Your task to perform on an android device: Find coffee shops on Maps Image 0: 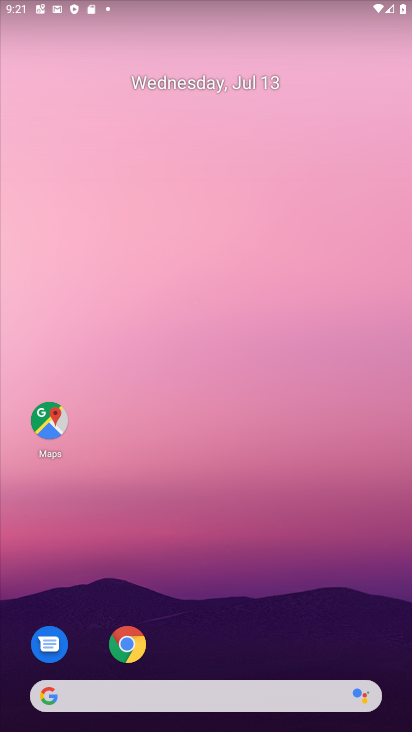
Step 0: drag from (167, 665) to (248, 196)
Your task to perform on an android device: Find coffee shops on Maps Image 1: 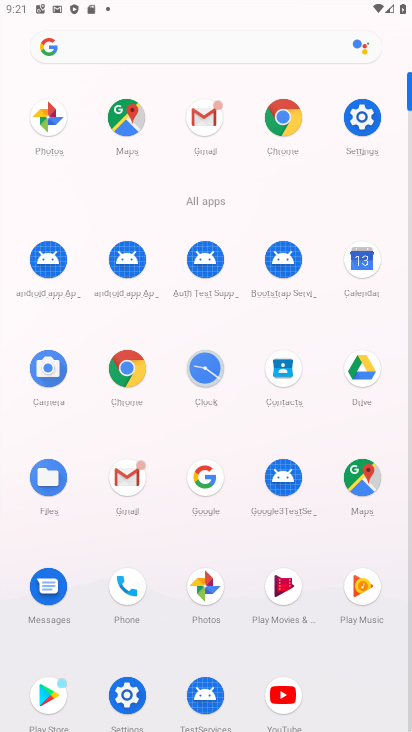
Step 1: click (359, 470)
Your task to perform on an android device: Find coffee shops on Maps Image 2: 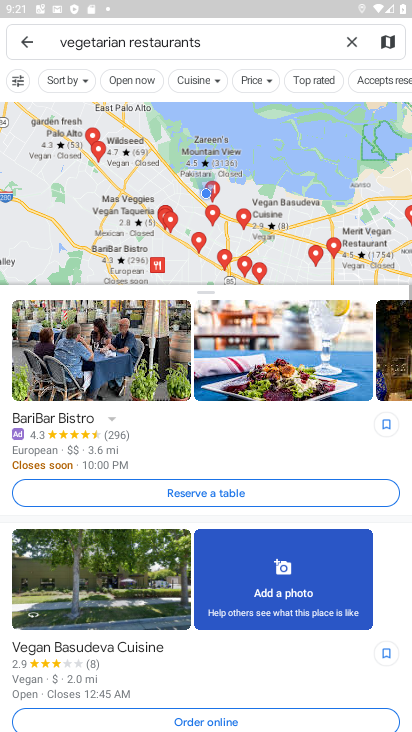
Step 2: click (351, 42)
Your task to perform on an android device: Find coffee shops on Maps Image 3: 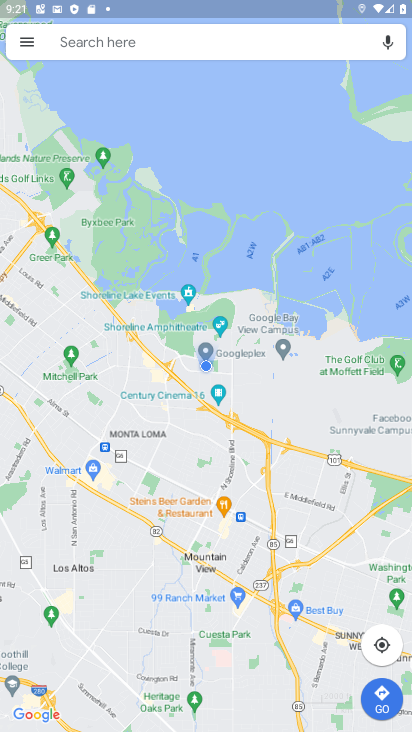
Step 3: click (168, 29)
Your task to perform on an android device: Find coffee shops on Maps Image 4: 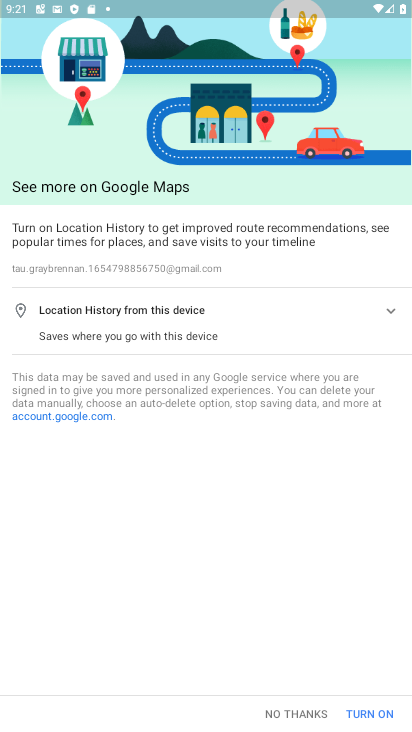
Step 4: click (308, 710)
Your task to perform on an android device: Find coffee shops on Maps Image 5: 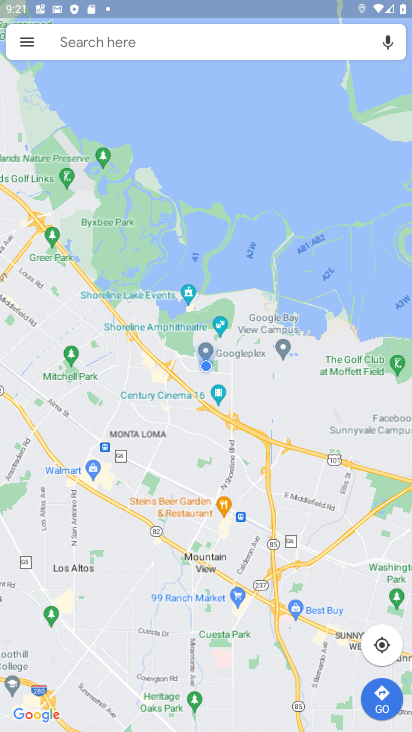
Step 5: click (167, 40)
Your task to perform on an android device: Find coffee shops on Maps Image 6: 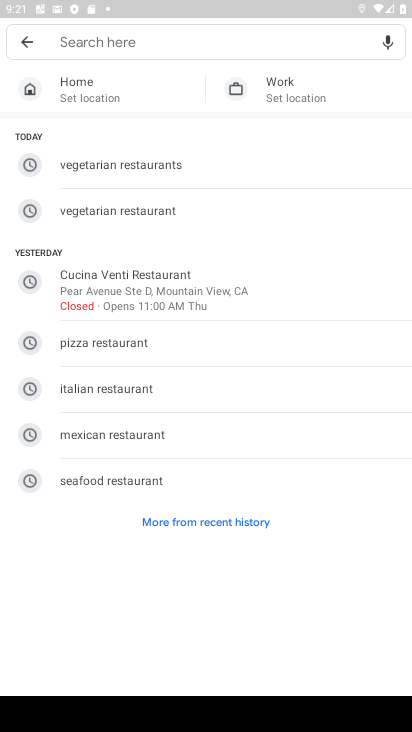
Step 6: type "Coffee shops"
Your task to perform on an android device: Find coffee shops on Maps Image 7: 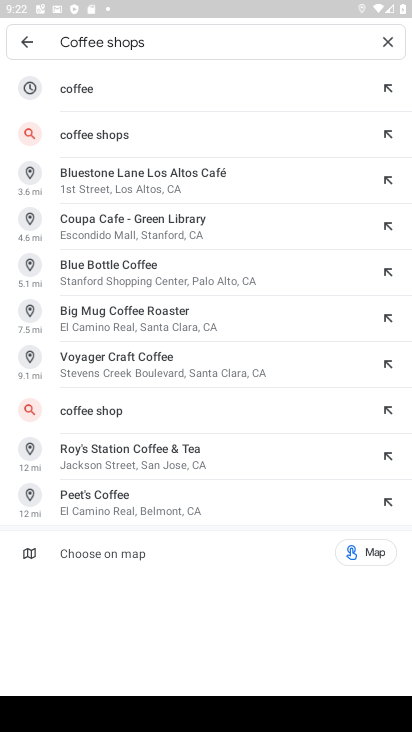
Step 7: click (203, 139)
Your task to perform on an android device: Find coffee shops on Maps Image 8: 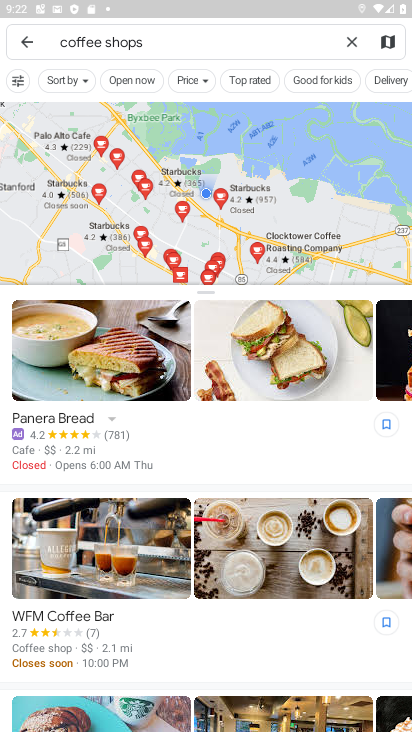
Step 8: task complete